Your task to perform on an android device: open a bookmark in the chrome app Image 0: 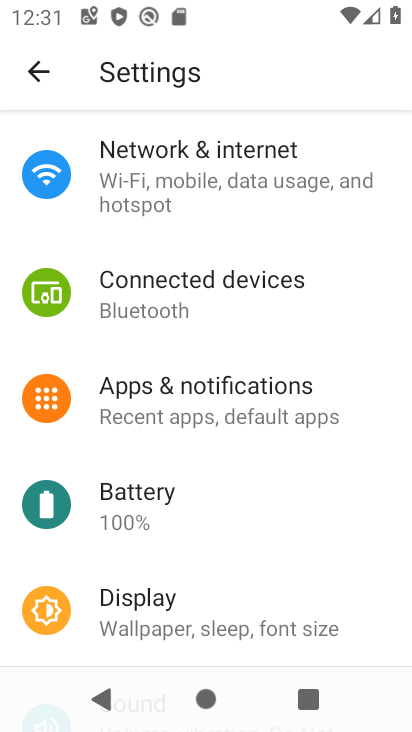
Step 0: press home button
Your task to perform on an android device: open a bookmark in the chrome app Image 1: 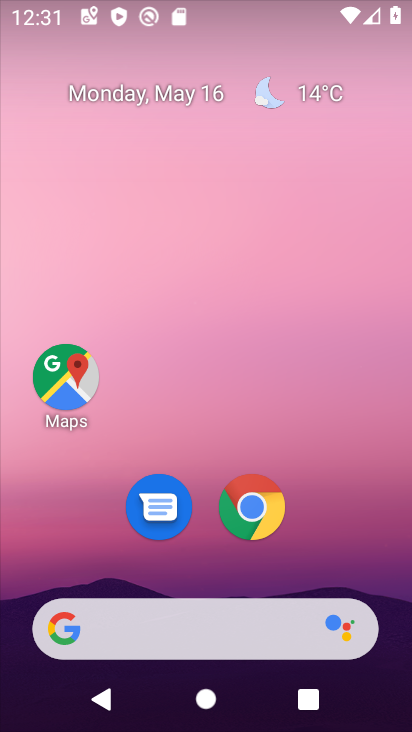
Step 1: drag from (288, 536) to (319, 230)
Your task to perform on an android device: open a bookmark in the chrome app Image 2: 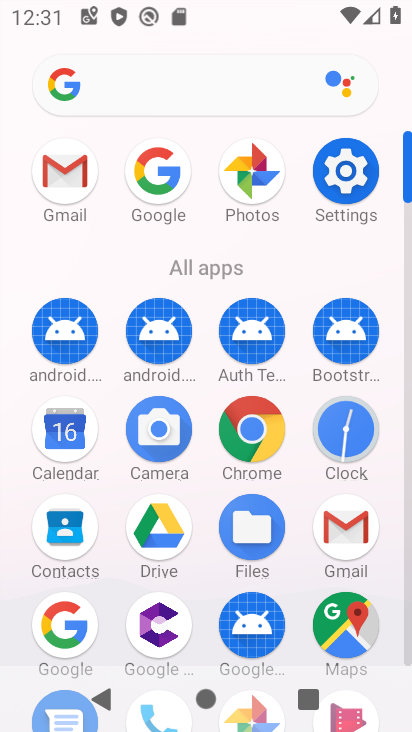
Step 2: click (268, 429)
Your task to perform on an android device: open a bookmark in the chrome app Image 3: 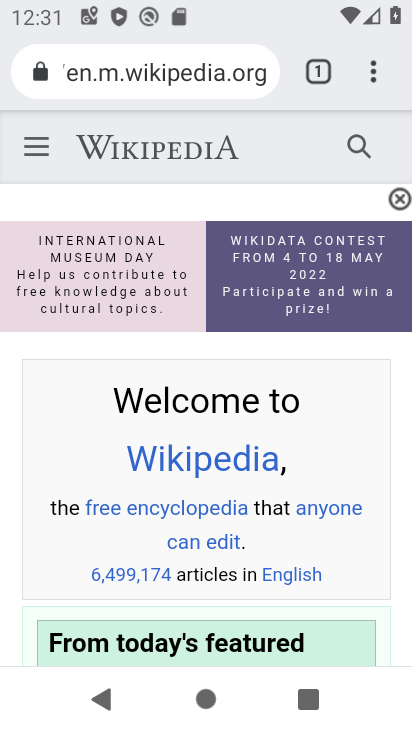
Step 3: click (381, 70)
Your task to perform on an android device: open a bookmark in the chrome app Image 4: 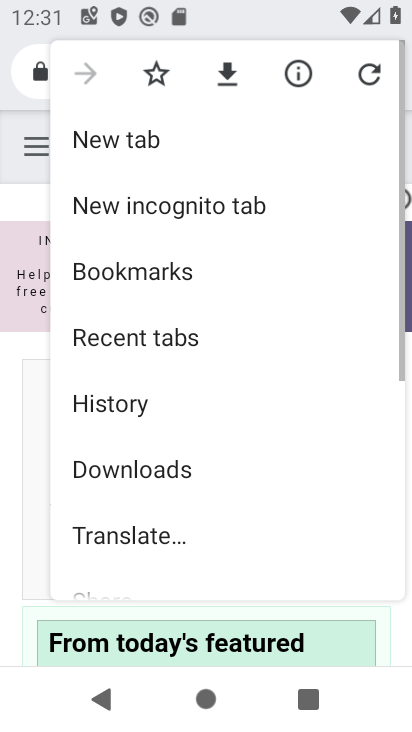
Step 4: click (208, 268)
Your task to perform on an android device: open a bookmark in the chrome app Image 5: 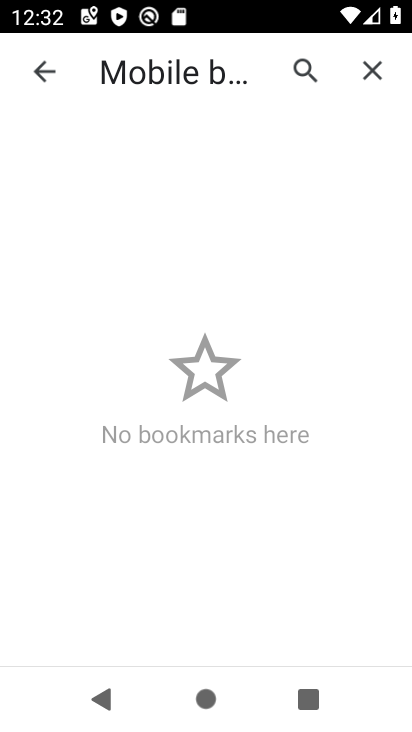
Step 5: task complete